Your task to perform on an android device: toggle wifi Image 0: 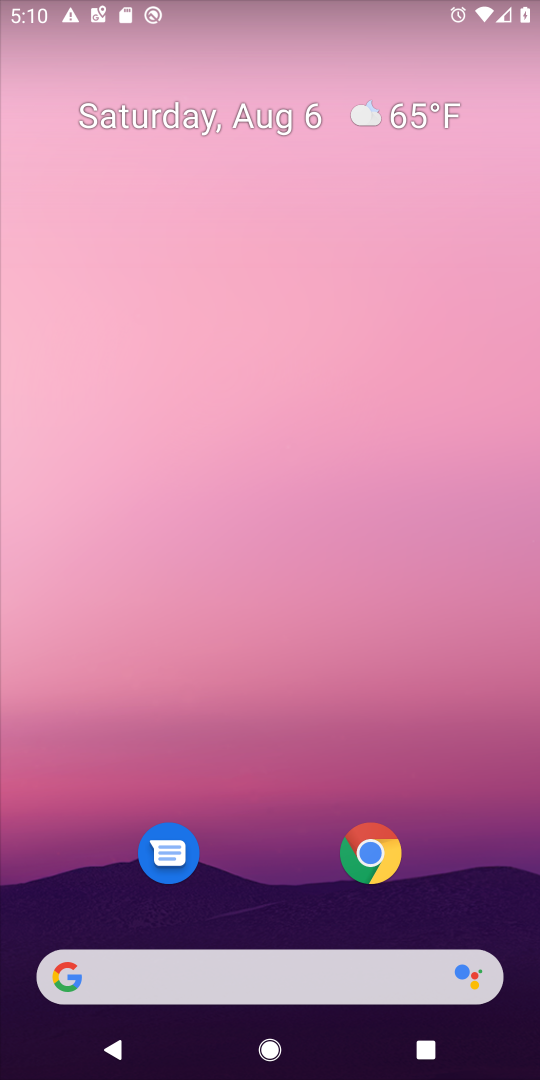
Step 0: drag from (113, 39) to (214, 822)
Your task to perform on an android device: toggle wifi Image 1: 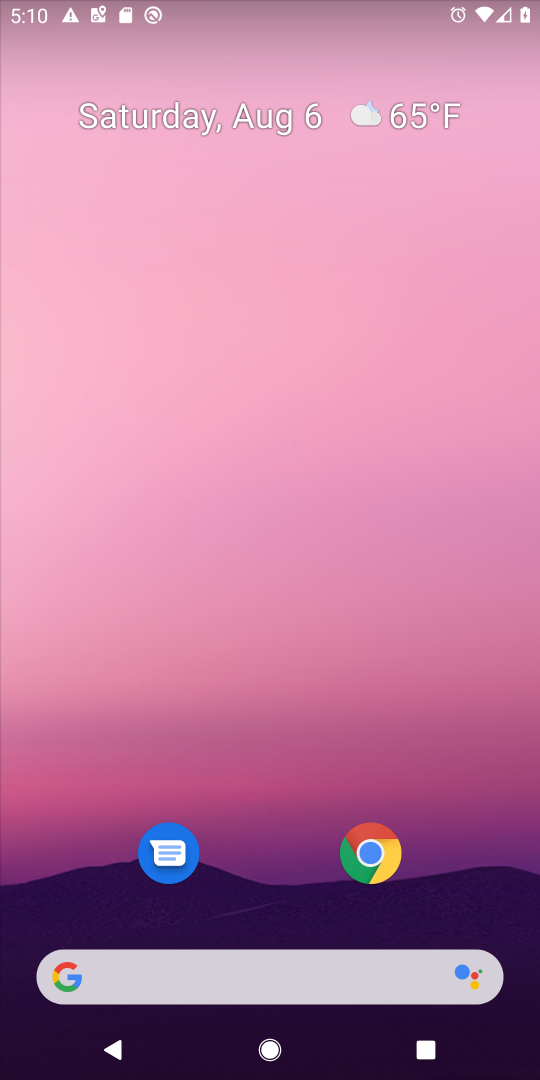
Step 1: drag from (108, 14) to (149, 782)
Your task to perform on an android device: toggle wifi Image 2: 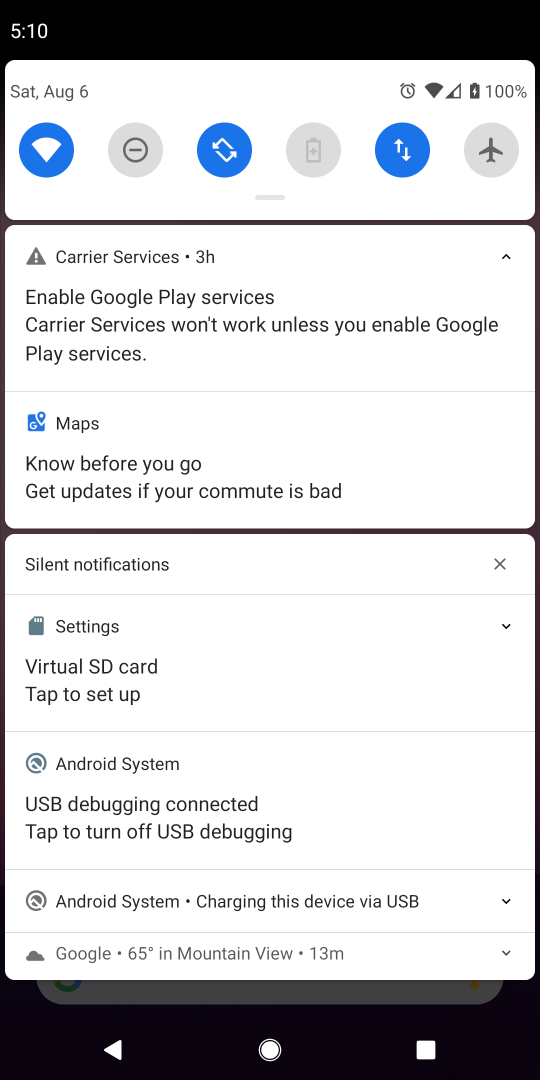
Step 2: click (47, 145)
Your task to perform on an android device: toggle wifi Image 3: 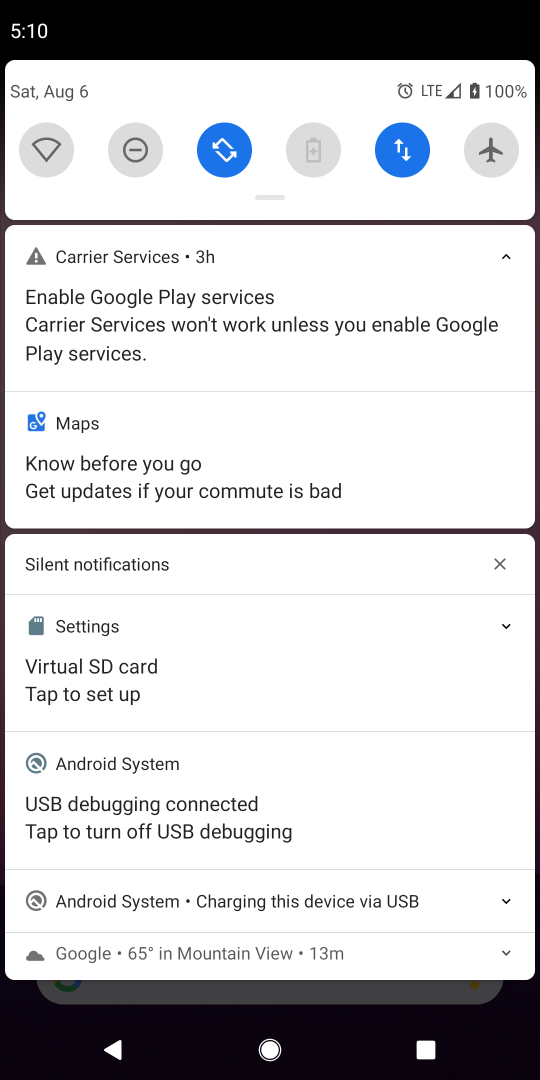
Step 3: task complete